Your task to perform on an android device: open the mobile data screen to see how much data has been used Image 0: 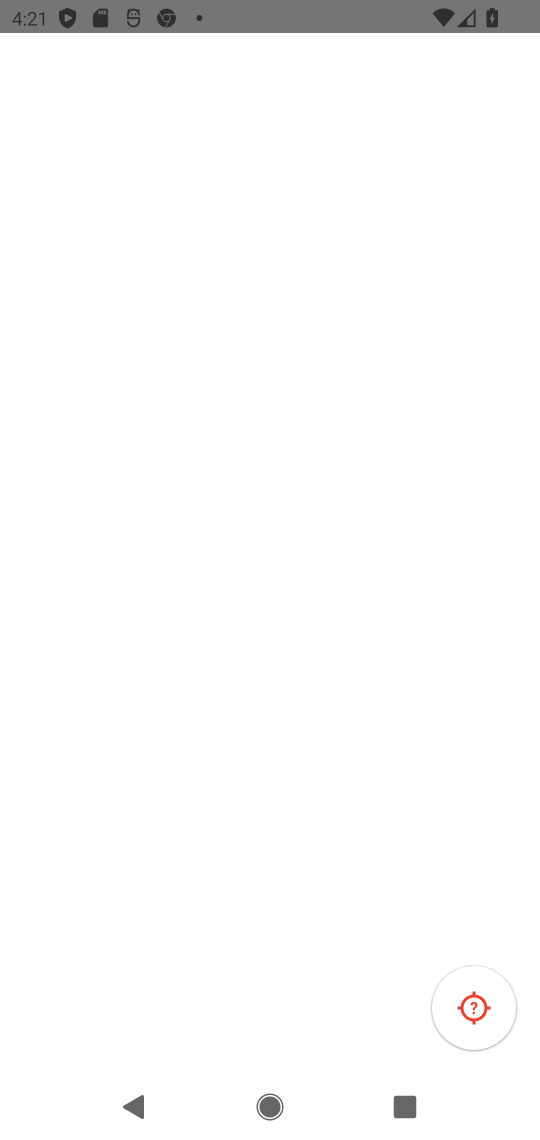
Step 0: click (369, 887)
Your task to perform on an android device: open the mobile data screen to see how much data has been used Image 1: 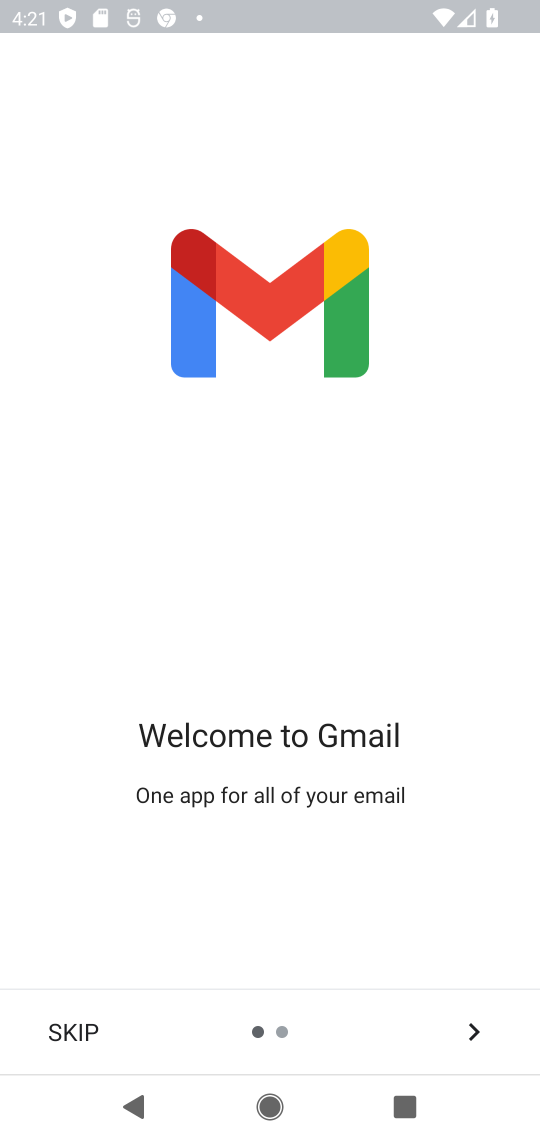
Step 1: press home button
Your task to perform on an android device: open the mobile data screen to see how much data has been used Image 2: 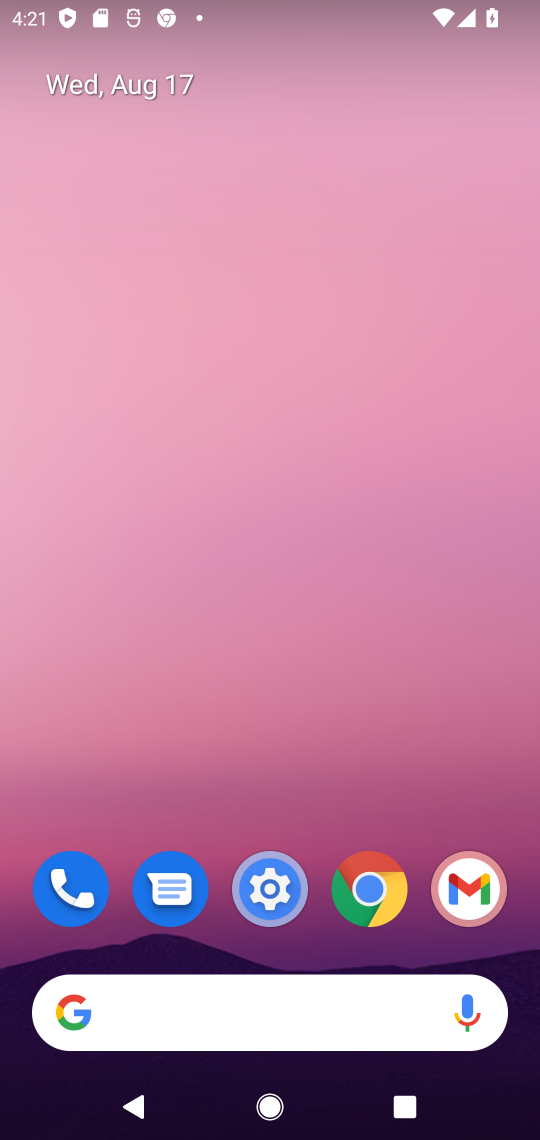
Step 2: click (257, 887)
Your task to perform on an android device: open the mobile data screen to see how much data has been used Image 3: 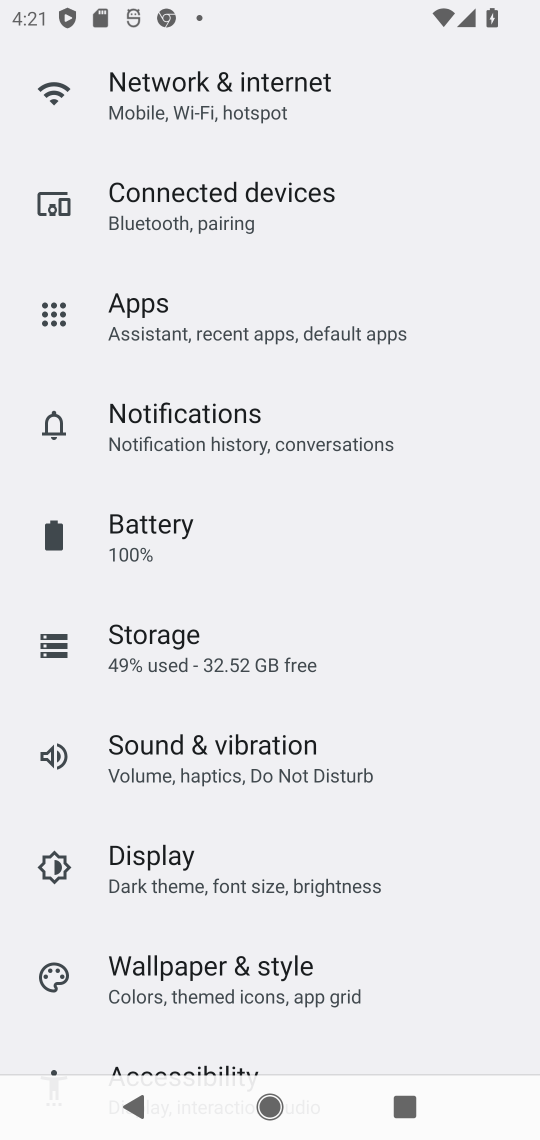
Step 3: click (179, 79)
Your task to perform on an android device: open the mobile data screen to see how much data has been used Image 4: 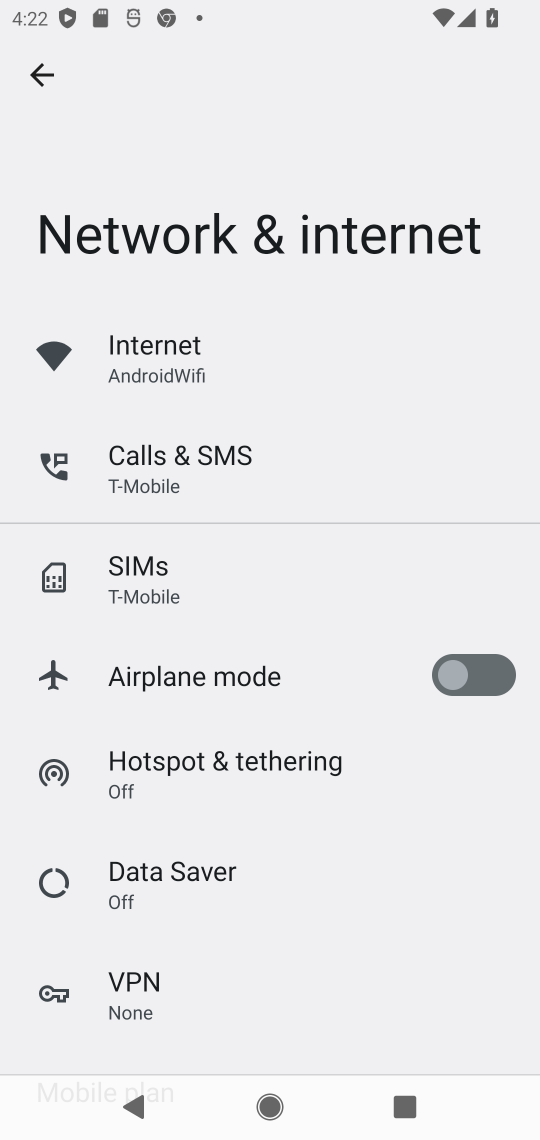
Step 4: click (155, 335)
Your task to perform on an android device: open the mobile data screen to see how much data has been used Image 5: 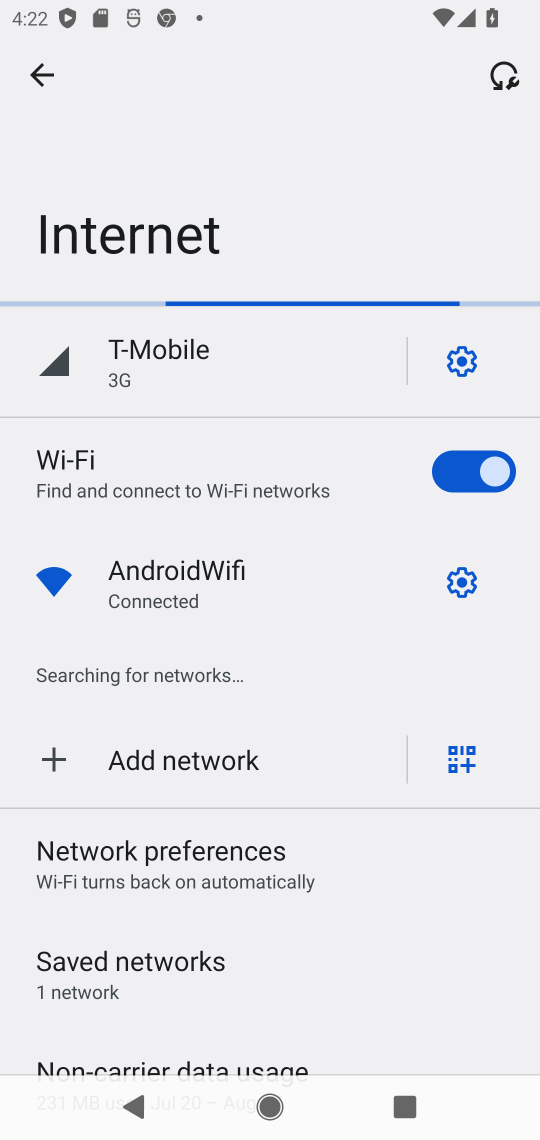
Step 5: drag from (357, 929) to (397, 367)
Your task to perform on an android device: open the mobile data screen to see how much data has been used Image 6: 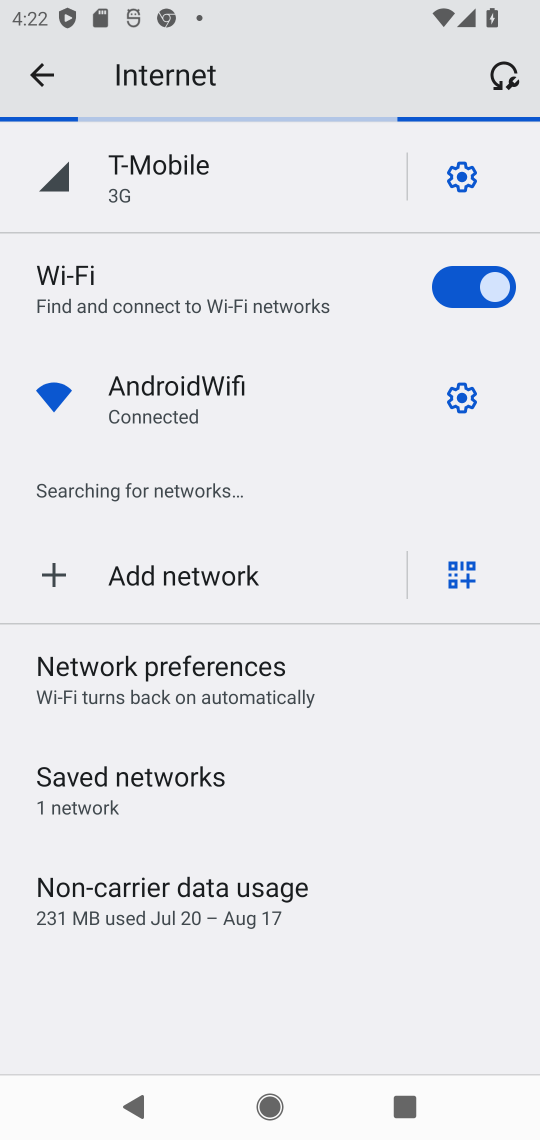
Step 6: click (179, 882)
Your task to perform on an android device: open the mobile data screen to see how much data has been used Image 7: 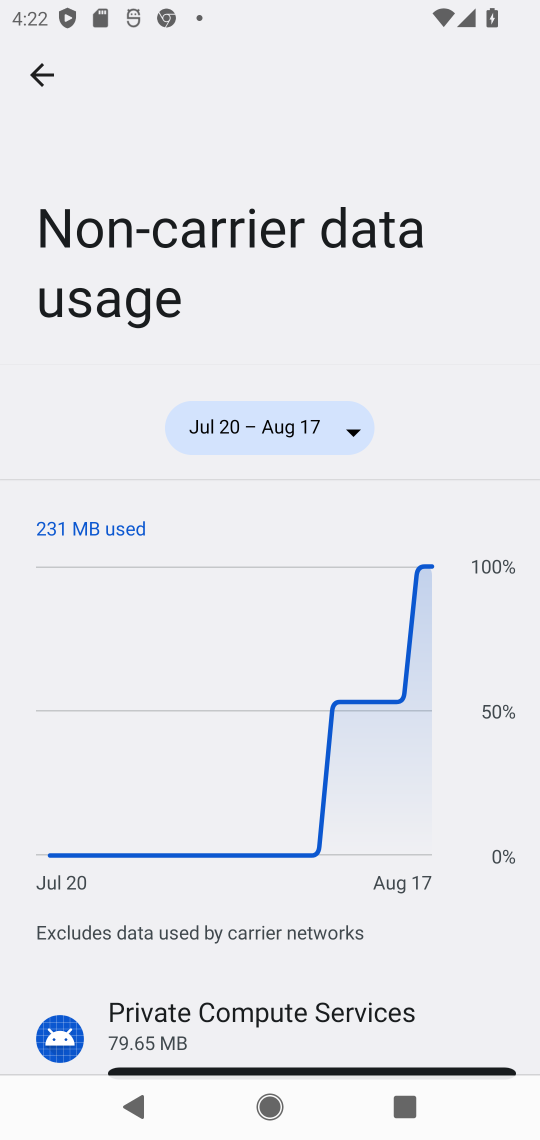
Step 7: task complete